Your task to perform on an android device: Search for a home improvement project you can do. Image 0: 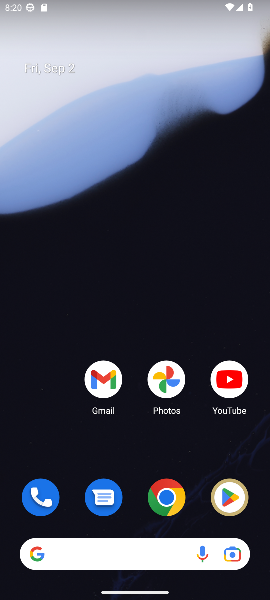
Step 0: drag from (134, 405) to (117, 65)
Your task to perform on an android device: Search for a home improvement project you can do. Image 1: 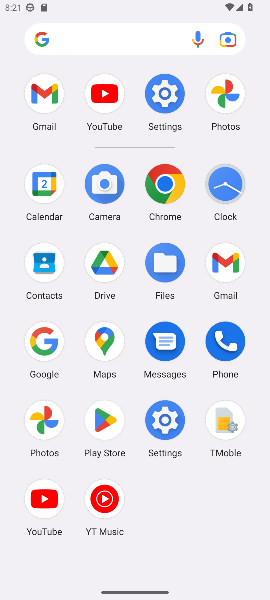
Step 1: click (48, 358)
Your task to perform on an android device: Search for a home improvement project you can do. Image 2: 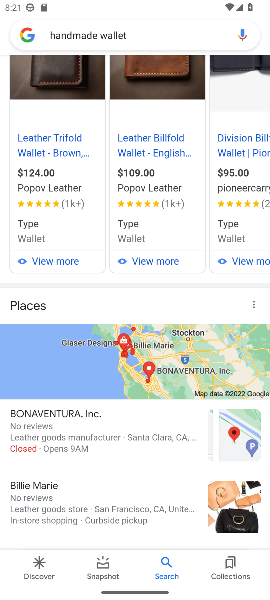
Step 2: click (163, 21)
Your task to perform on an android device: Search for a home improvement project you can do. Image 3: 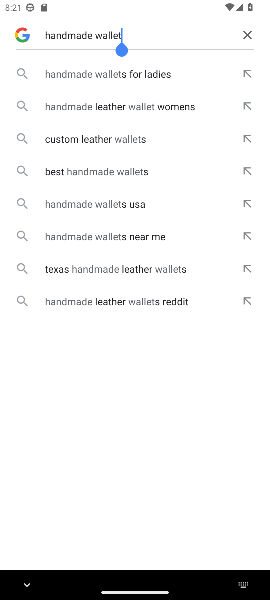
Step 3: click (249, 34)
Your task to perform on an android device: Search for a home improvement project you can do. Image 4: 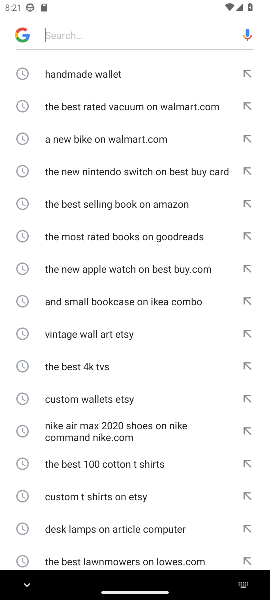
Step 4: type "a home improvement project you can do"
Your task to perform on an android device: Search for a home improvement project you can do. Image 5: 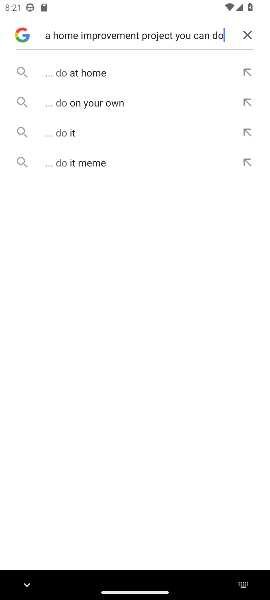
Step 5: click (72, 75)
Your task to perform on an android device: Search for a home improvement project you can do. Image 6: 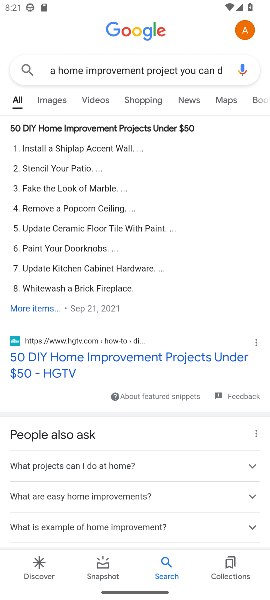
Step 6: task complete